Your task to perform on an android device: turn off data saver in the chrome app Image 0: 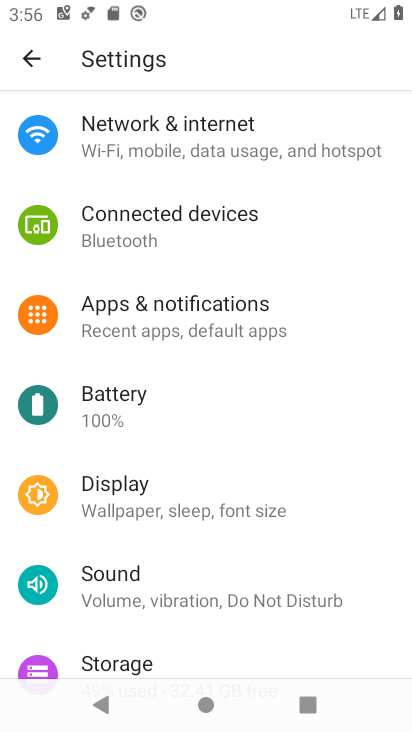
Step 0: press home button
Your task to perform on an android device: turn off data saver in the chrome app Image 1: 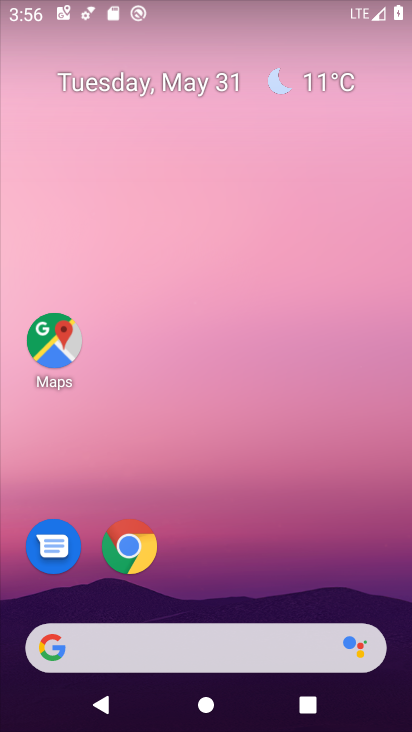
Step 1: click (128, 547)
Your task to perform on an android device: turn off data saver in the chrome app Image 2: 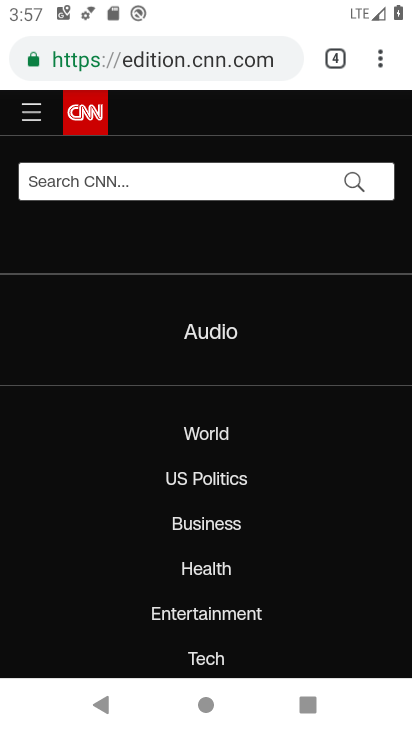
Step 2: click (371, 52)
Your task to perform on an android device: turn off data saver in the chrome app Image 3: 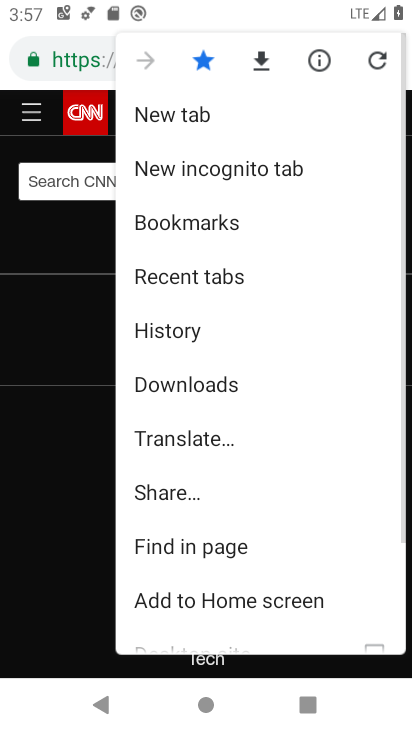
Step 3: drag from (235, 461) to (218, 87)
Your task to perform on an android device: turn off data saver in the chrome app Image 4: 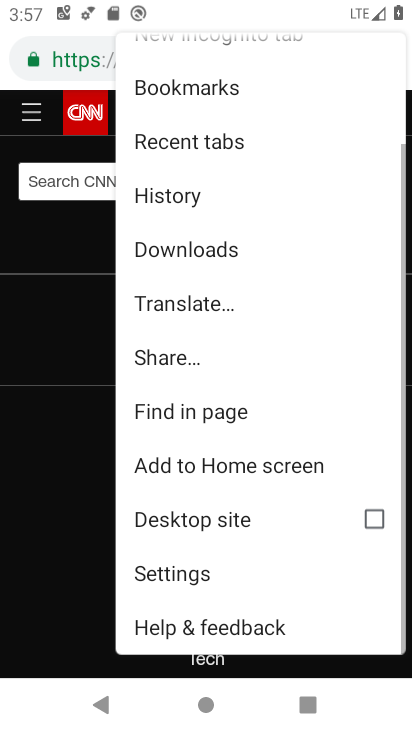
Step 4: click (188, 568)
Your task to perform on an android device: turn off data saver in the chrome app Image 5: 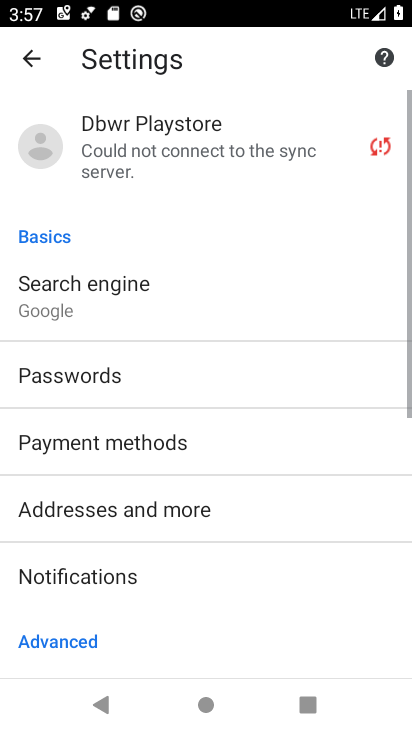
Step 5: drag from (155, 592) to (110, 149)
Your task to perform on an android device: turn off data saver in the chrome app Image 6: 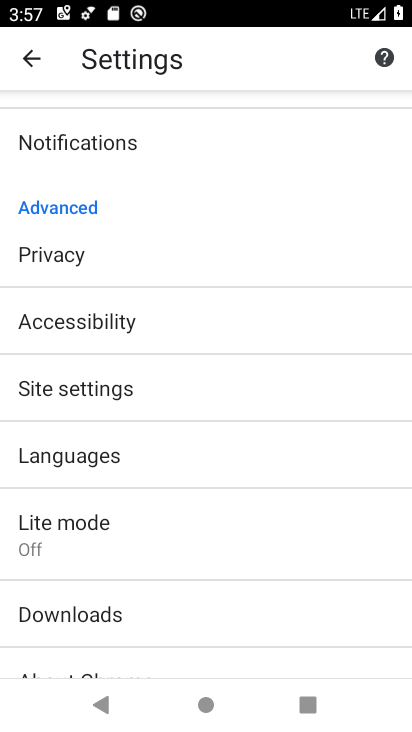
Step 6: click (110, 551)
Your task to perform on an android device: turn off data saver in the chrome app Image 7: 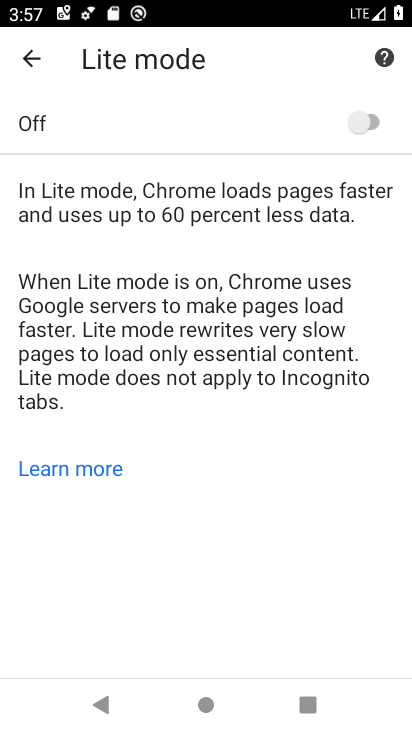
Step 7: task complete